Your task to perform on an android device: make emails show in primary in the gmail app Image 0: 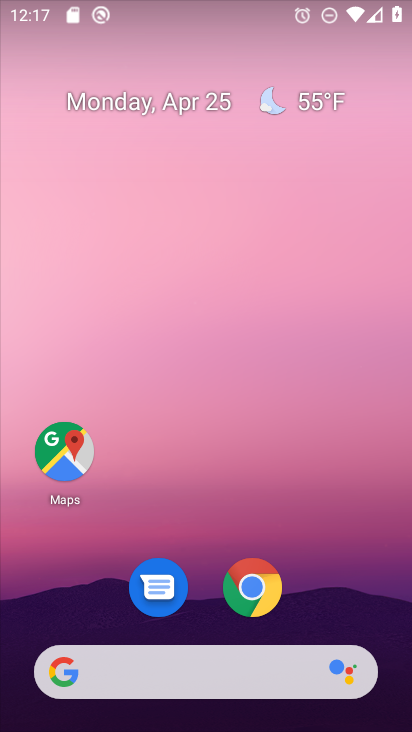
Step 0: drag from (340, 586) to (308, 138)
Your task to perform on an android device: make emails show in primary in the gmail app Image 1: 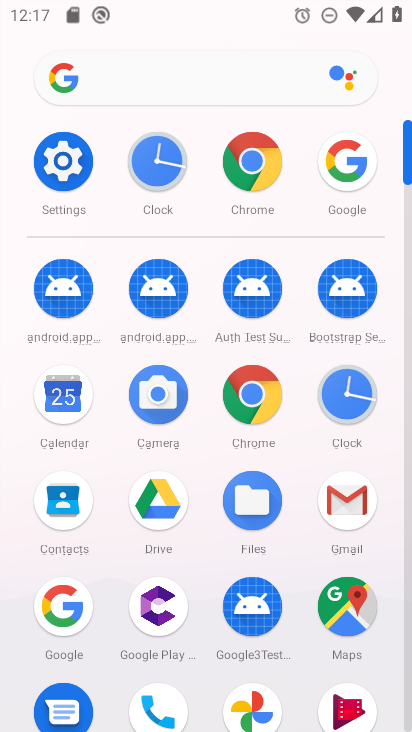
Step 1: click (343, 510)
Your task to perform on an android device: make emails show in primary in the gmail app Image 2: 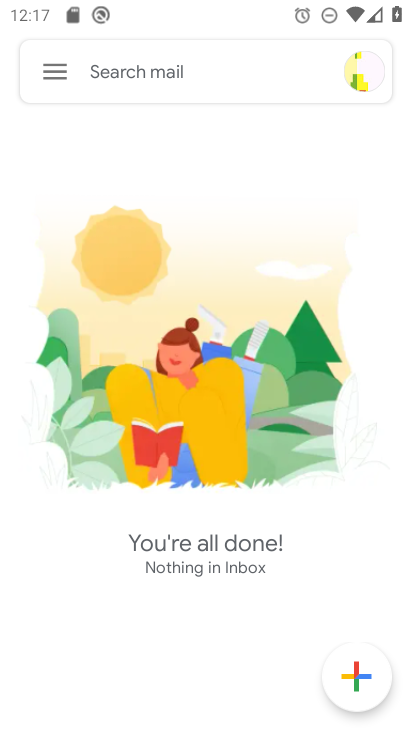
Step 2: click (47, 71)
Your task to perform on an android device: make emails show in primary in the gmail app Image 3: 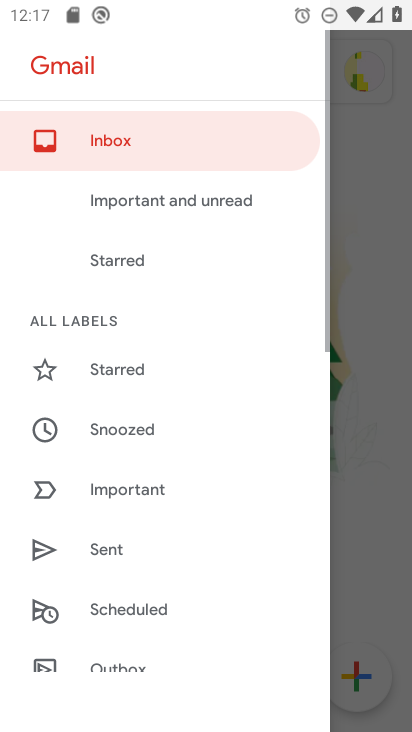
Step 3: drag from (164, 557) to (218, 198)
Your task to perform on an android device: make emails show in primary in the gmail app Image 4: 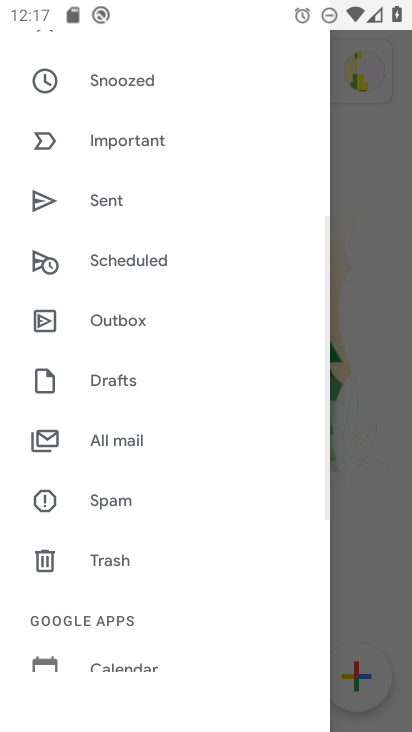
Step 4: drag from (140, 556) to (198, 197)
Your task to perform on an android device: make emails show in primary in the gmail app Image 5: 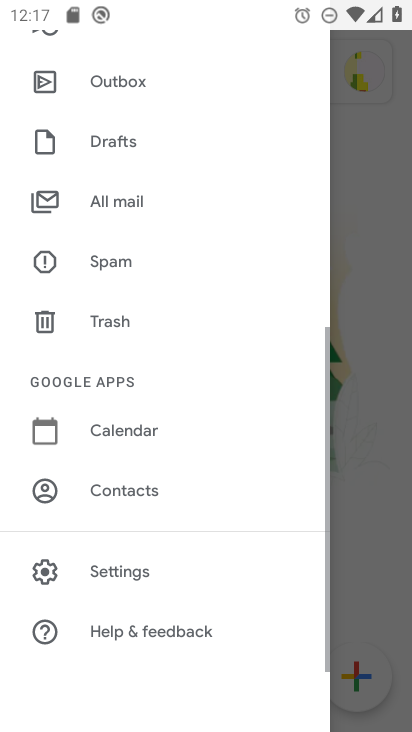
Step 5: click (108, 569)
Your task to perform on an android device: make emails show in primary in the gmail app Image 6: 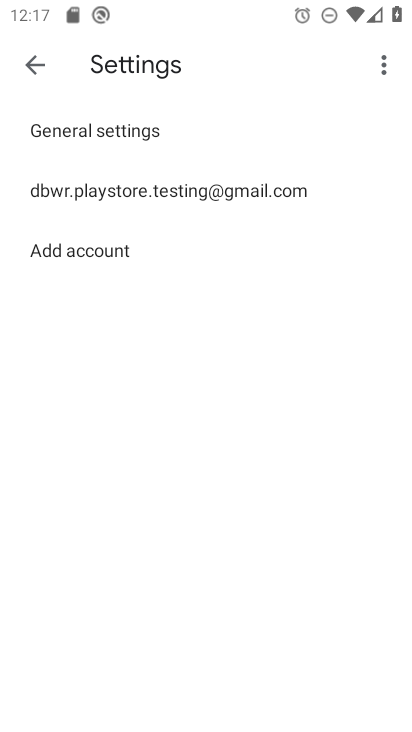
Step 6: click (228, 190)
Your task to perform on an android device: make emails show in primary in the gmail app Image 7: 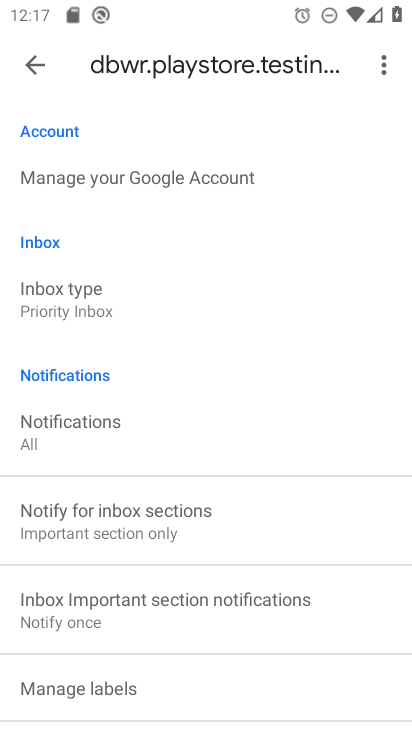
Step 7: click (93, 313)
Your task to perform on an android device: make emails show in primary in the gmail app Image 8: 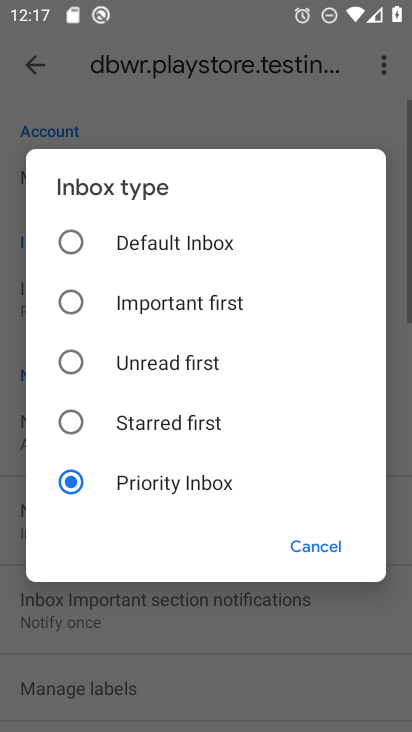
Step 8: click (110, 253)
Your task to perform on an android device: make emails show in primary in the gmail app Image 9: 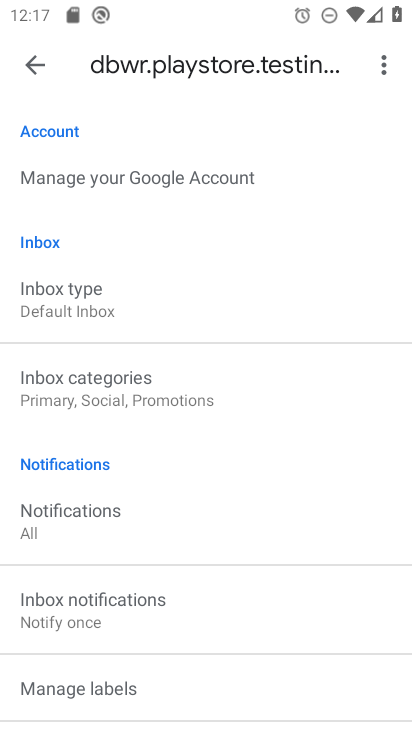
Step 9: click (136, 388)
Your task to perform on an android device: make emails show in primary in the gmail app Image 10: 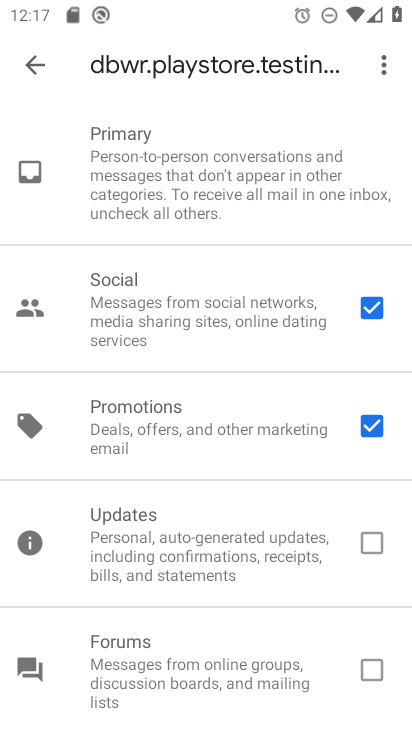
Step 10: task complete